Your task to perform on an android device: turn on the 24-hour format for clock Image 0: 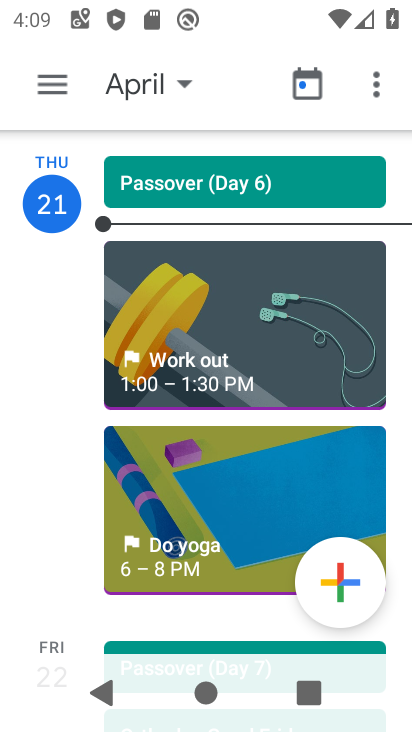
Step 0: press back button
Your task to perform on an android device: turn on the 24-hour format for clock Image 1: 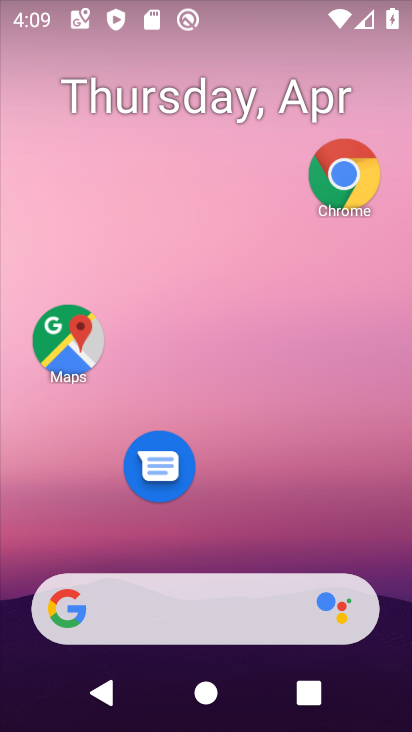
Step 1: drag from (224, 444) to (280, 136)
Your task to perform on an android device: turn on the 24-hour format for clock Image 2: 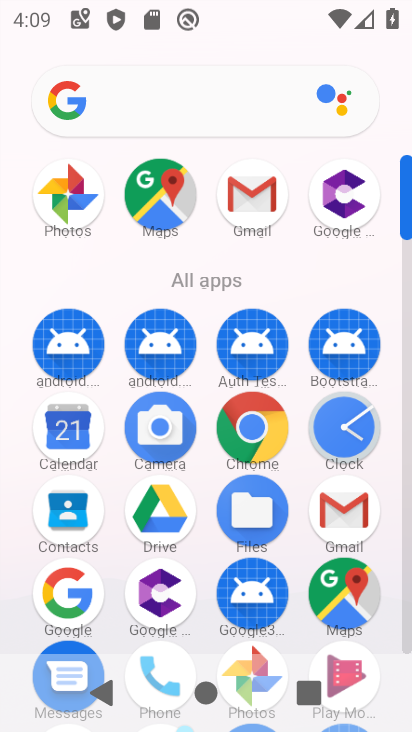
Step 2: click (363, 428)
Your task to perform on an android device: turn on the 24-hour format for clock Image 3: 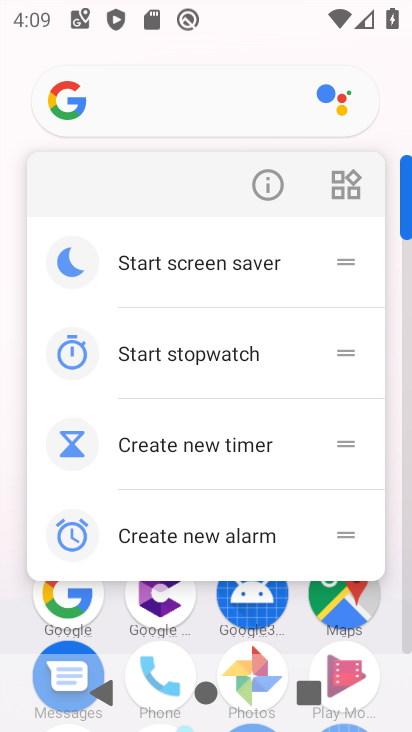
Step 3: press back button
Your task to perform on an android device: turn on the 24-hour format for clock Image 4: 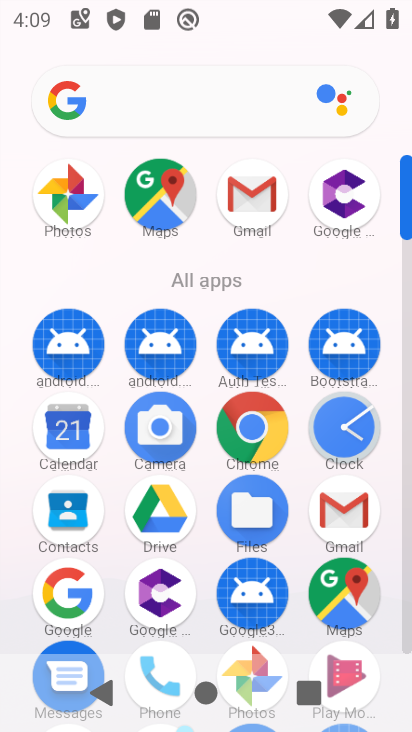
Step 4: click (335, 448)
Your task to perform on an android device: turn on the 24-hour format for clock Image 5: 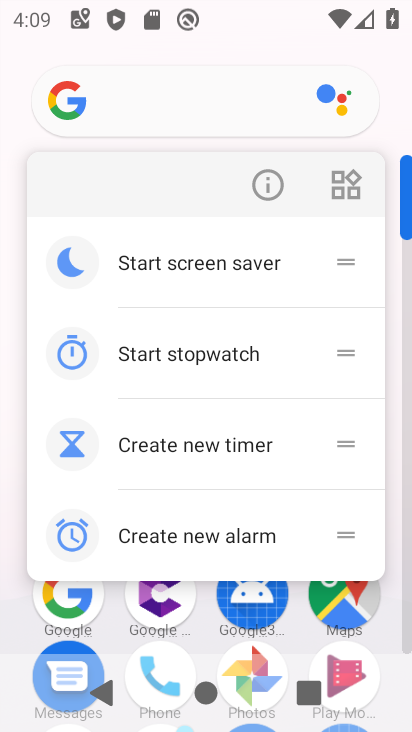
Step 5: press back button
Your task to perform on an android device: turn on the 24-hour format for clock Image 6: 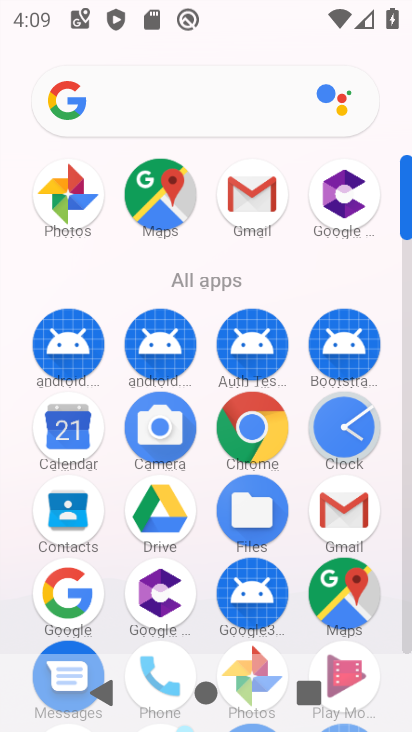
Step 6: click (364, 427)
Your task to perform on an android device: turn on the 24-hour format for clock Image 7: 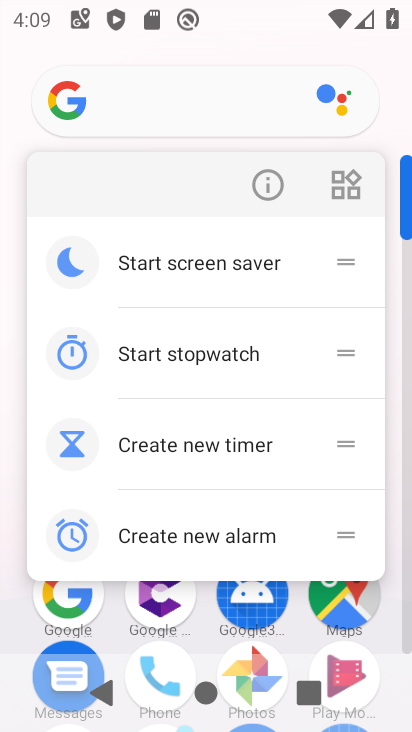
Step 7: press back button
Your task to perform on an android device: turn on the 24-hour format for clock Image 8: 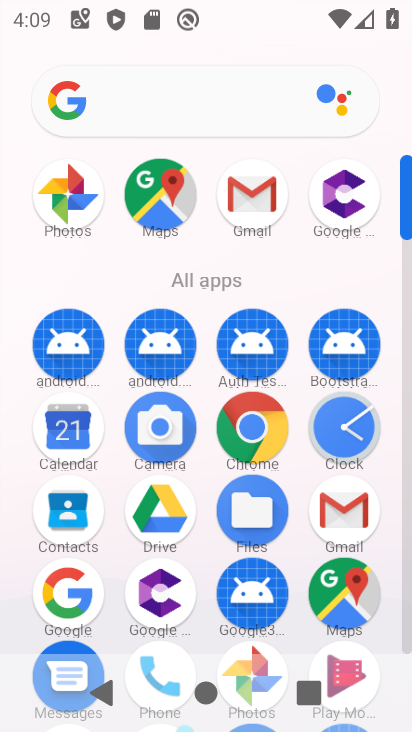
Step 8: click (355, 440)
Your task to perform on an android device: turn on the 24-hour format for clock Image 9: 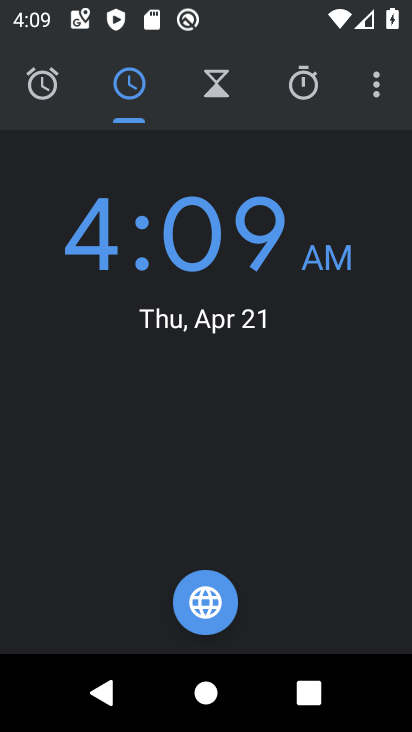
Step 9: click (393, 105)
Your task to perform on an android device: turn on the 24-hour format for clock Image 10: 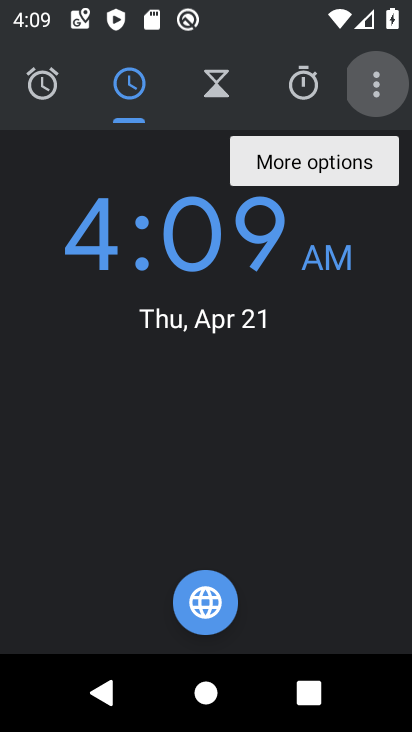
Step 10: click (384, 91)
Your task to perform on an android device: turn on the 24-hour format for clock Image 11: 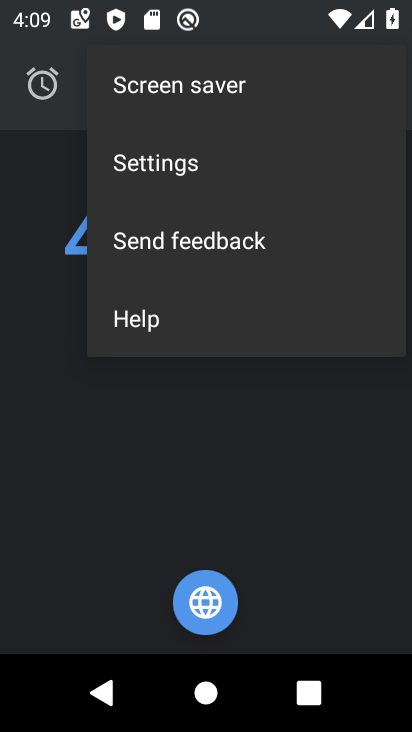
Step 11: click (315, 161)
Your task to perform on an android device: turn on the 24-hour format for clock Image 12: 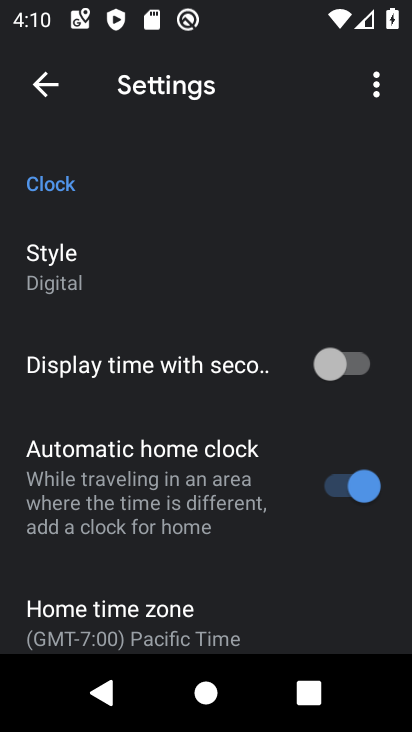
Step 12: drag from (156, 583) to (271, 187)
Your task to perform on an android device: turn on the 24-hour format for clock Image 13: 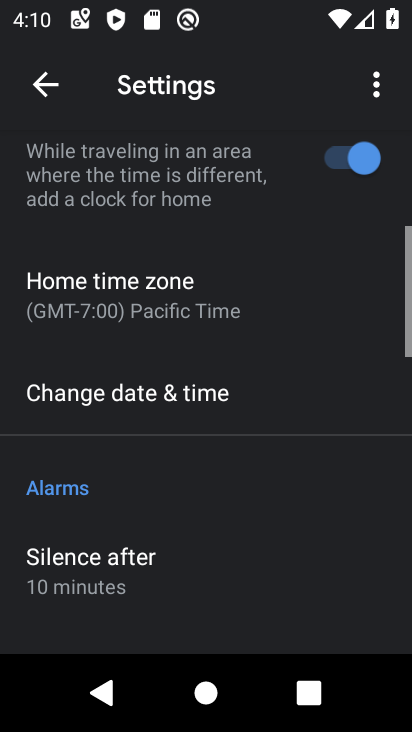
Step 13: click (206, 429)
Your task to perform on an android device: turn on the 24-hour format for clock Image 14: 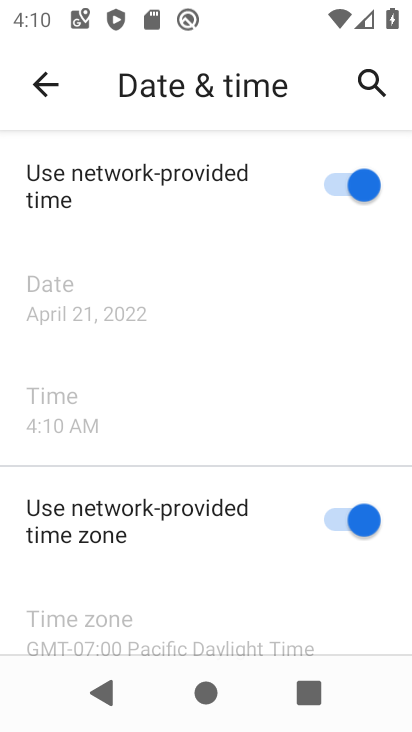
Step 14: click (257, 419)
Your task to perform on an android device: turn on the 24-hour format for clock Image 15: 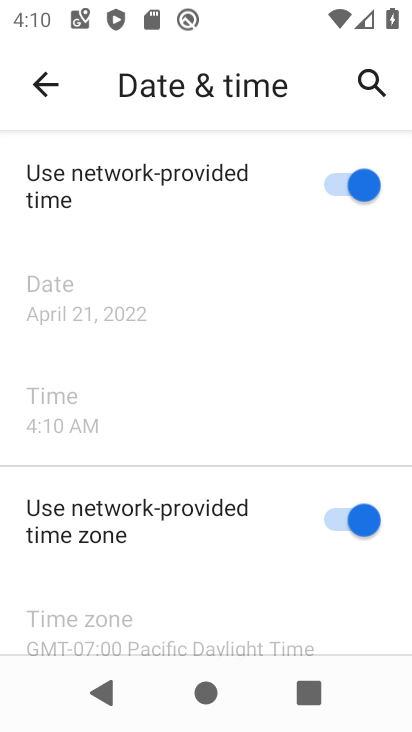
Step 15: drag from (171, 566) to (340, 130)
Your task to perform on an android device: turn on the 24-hour format for clock Image 16: 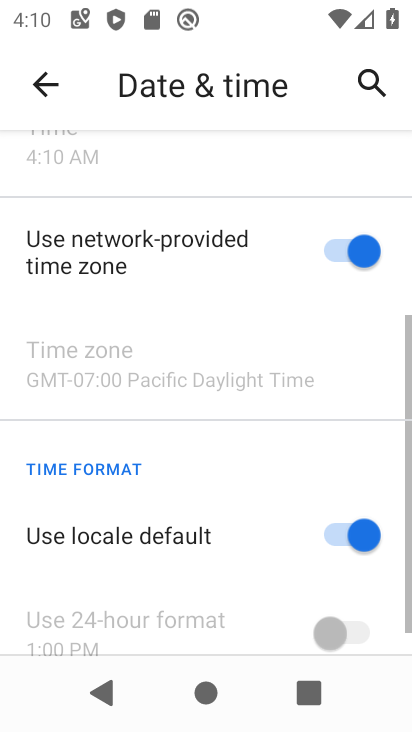
Step 16: drag from (274, 611) to (408, 142)
Your task to perform on an android device: turn on the 24-hour format for clock Image 17: 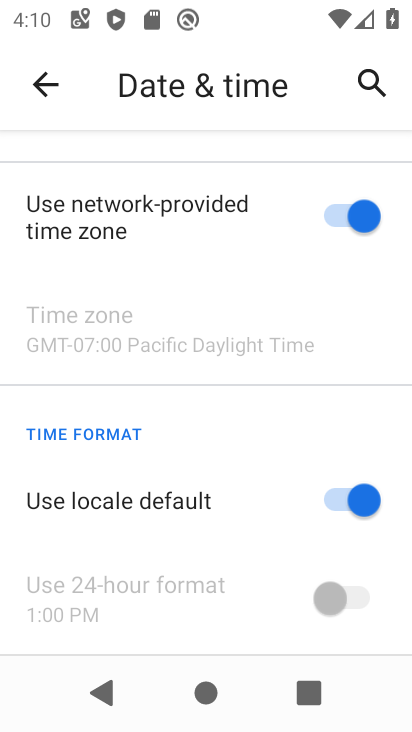
Step 17: click (336, 502)
Your task to perform on an android device: turn on the 24-hour format for clock Image 18: 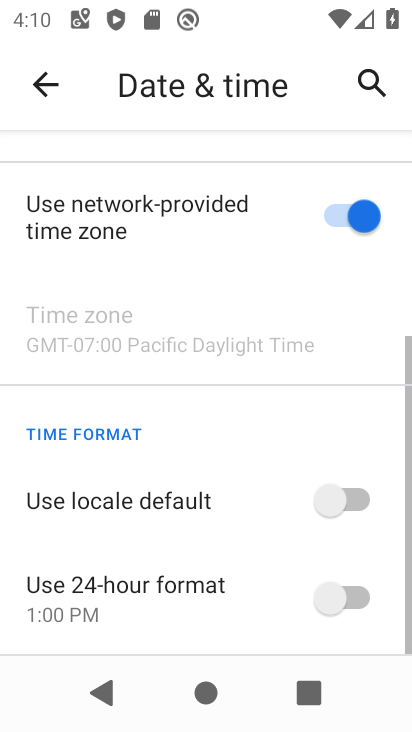
Step 18: click (369, 604)
Your task to perform on an android device: turn on the 24-hour format for clock Image 19: 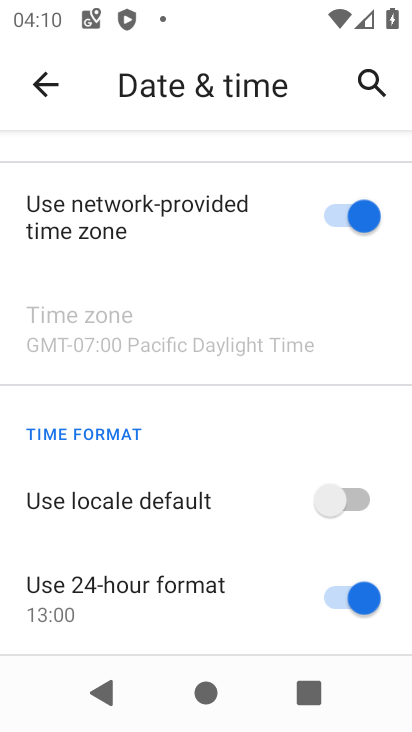
Step 19: task complete